Your task to perform on an android device: turn on priority inbox in the gmail app Image 0: 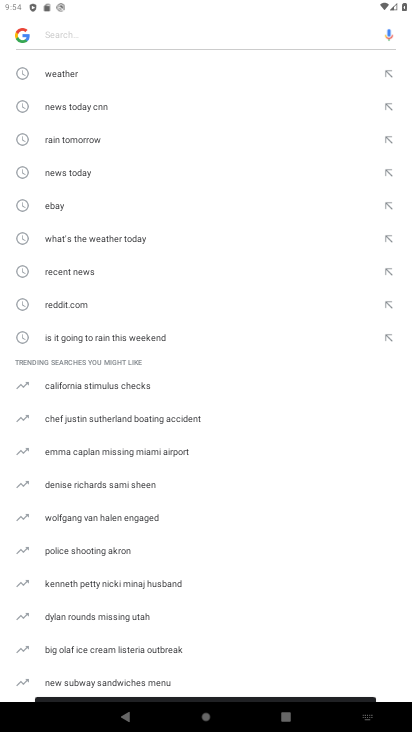
Step 0: press home button
Your task to perform on an android device: turn on priority inbox in the gmail app Image 1: 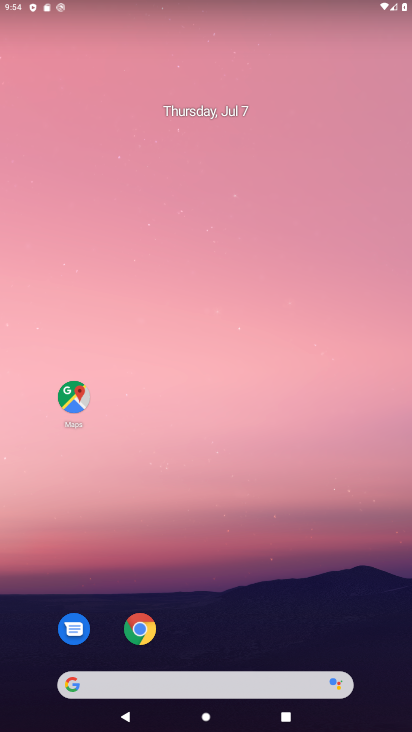
Step 1: drag from (360, 643) to (324, 104)
Your task to perform on an android device: turn on priority inbox in the gmail app Image 2: 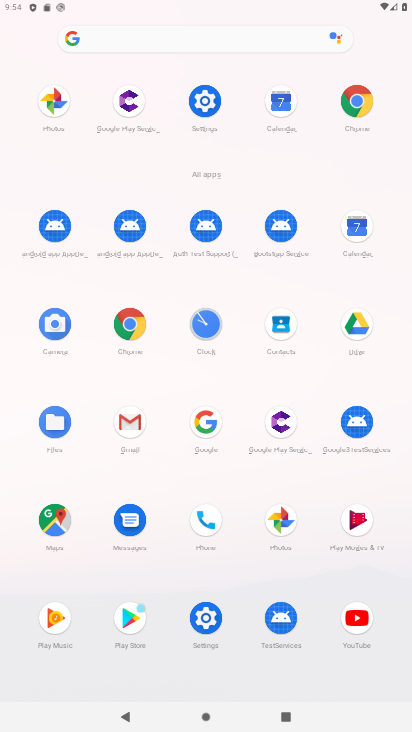
Step 2: click (130, 421)
Your task to perform on an android device: turn on priority inbox in the gmail app Image 3: 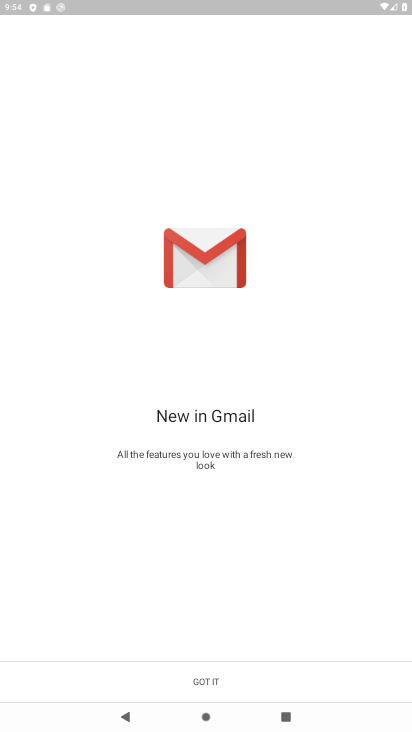
Step 3: click (207, 680)
Your task to perform on an android device: turn on priority inbox in the gmail app Image 4: 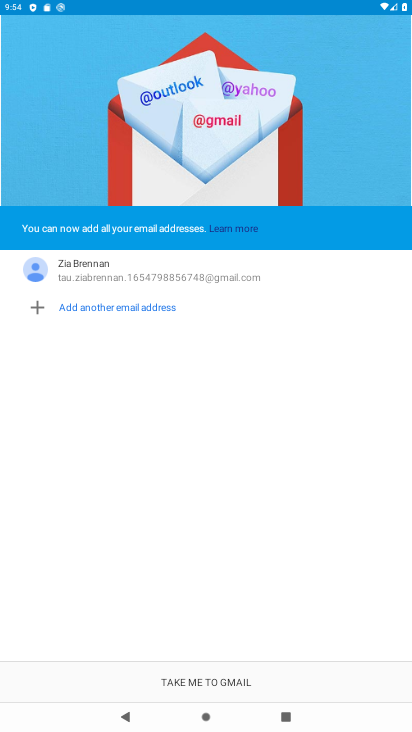
Step 4: click (209, 677)
Your task to perform on an android device: turn on priority inbox in the gmail app Image 5: 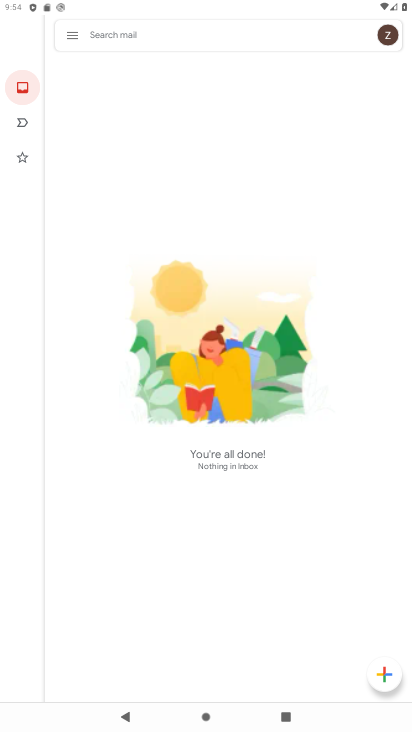
Step 5: click (71, 35)
Your task to perform on an android device: turn on priority inbox in the gmail app Image 6: 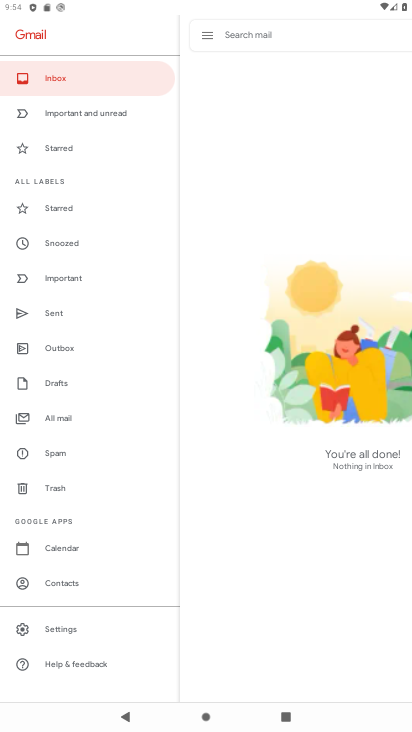
Step 6: click (54, 624)
Your task to perform on an android device: turn on priority inbox in the gmail app Image 7: 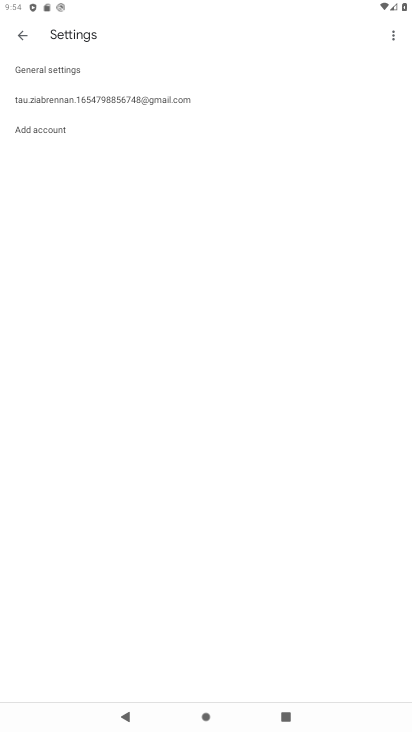
Step 7: click (87, 97)
Your task to perform on an android device: turn on priority inbox in the gmail app Image 8: 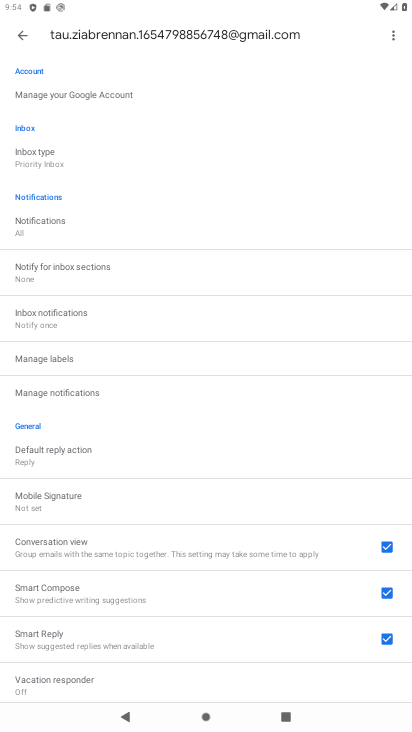
Step 8: click (51, 158)
Your task to perform on an android device: turn on priority inbox in the gmail app Image 9: 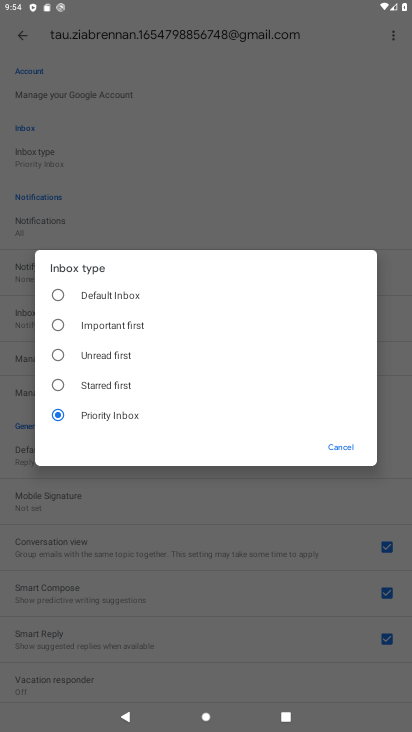
Step 9: task complete